Your task to perform on an android device: change keyboard looks Image 0: 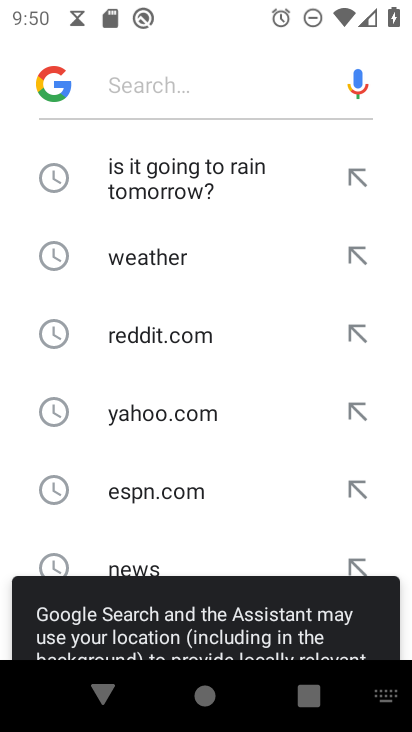
Step 0: press home button
Your task to perform on an android device: change keyboard looks Image 1: 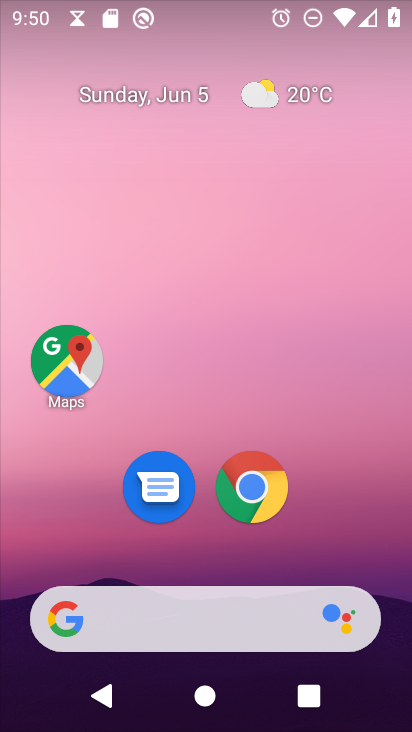
Step 1: drag from (309, 575) to (314, 125)
Your task to perform on an android device: change keyboard looks Image 2: 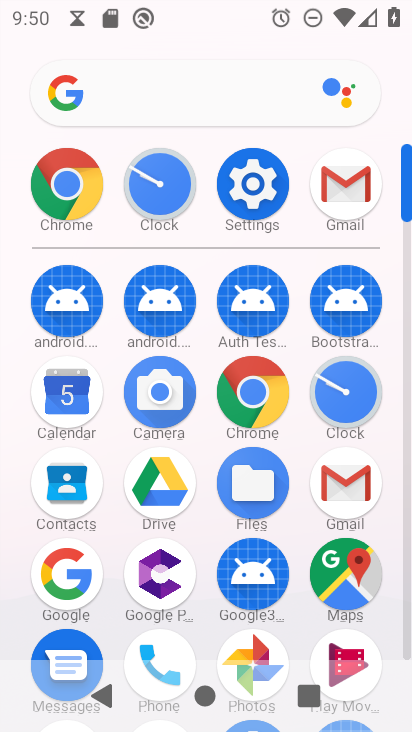
Step 2: click (271, 167)
Your task to perform on an android device: change keyboard looks Image 3: 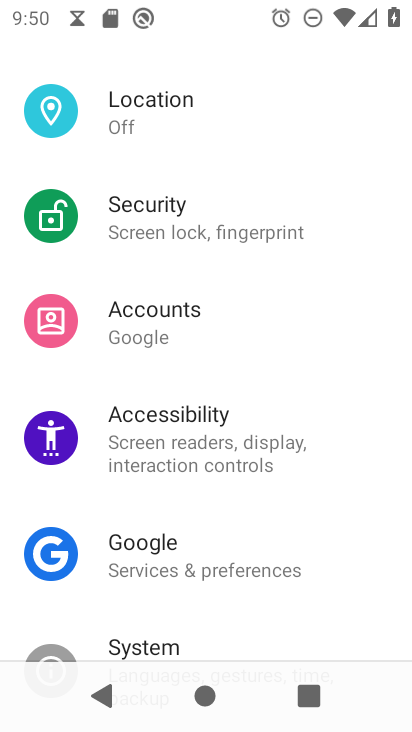
Step 3: click (161, 631)
Your task to perform on an android device: change keyboard looks Image 4: 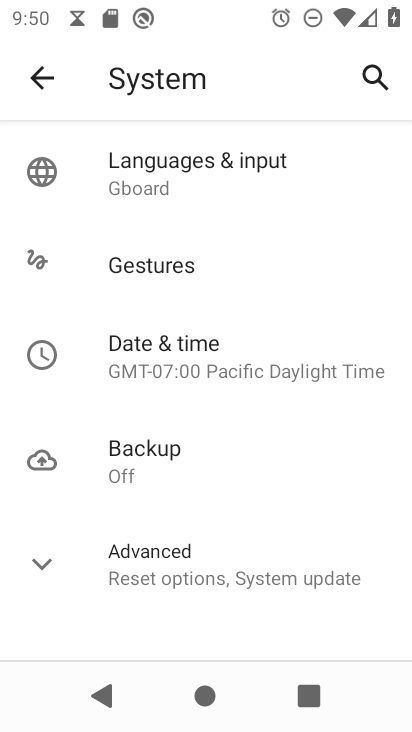
Step 4: click (177, 165)
Your task to perform on an android device: change keyboard looks Image 5: 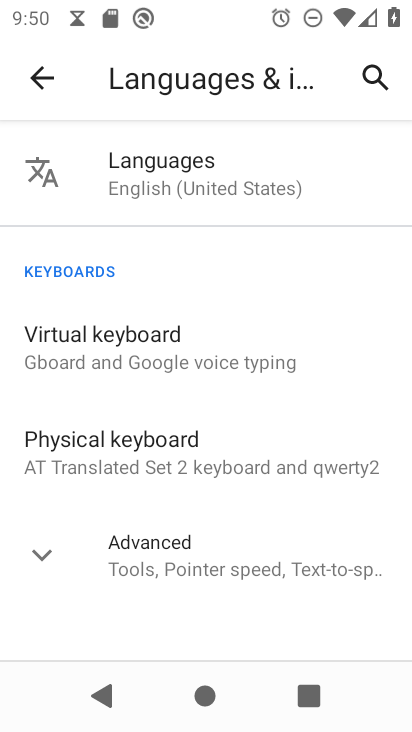
Step 5: click (135, 360)
Your task to perform on an android device: change keyboard looks Image 6: 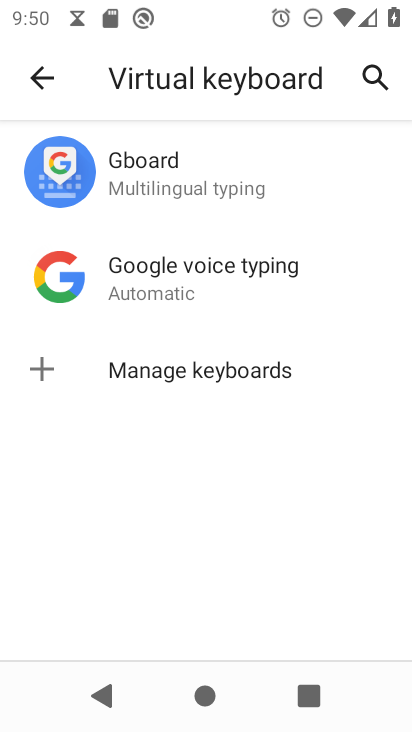
Step 6: click (162, 196)
Your task to perform on an android device: change keyboard looks Image 7: 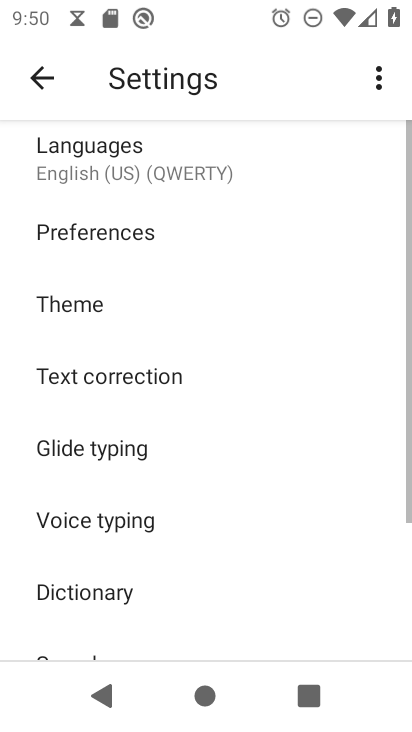
Step 7: click (125, 316)
Your task to perform on an android device: change keyboard looks Image 8: 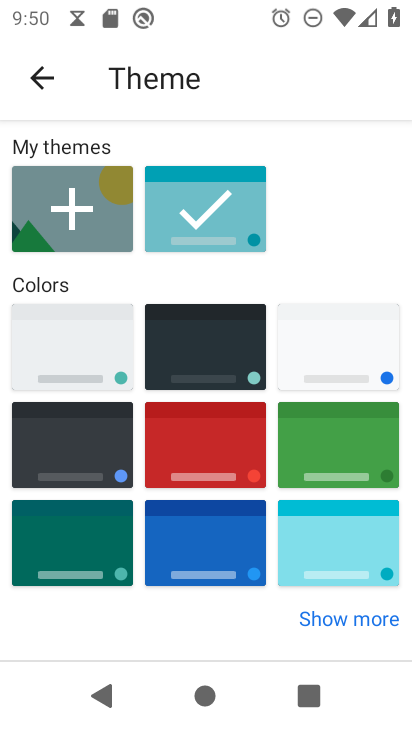
Step 8: click (197, 558)
Your task to perform on an android device: change keyboard looks Image 9: 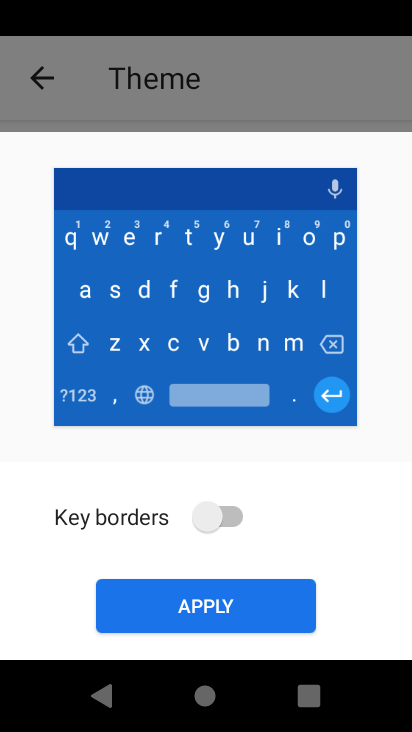
Step 9: click (230, 524)
Your task to perform on an android device: change keyboard looks Image 10: 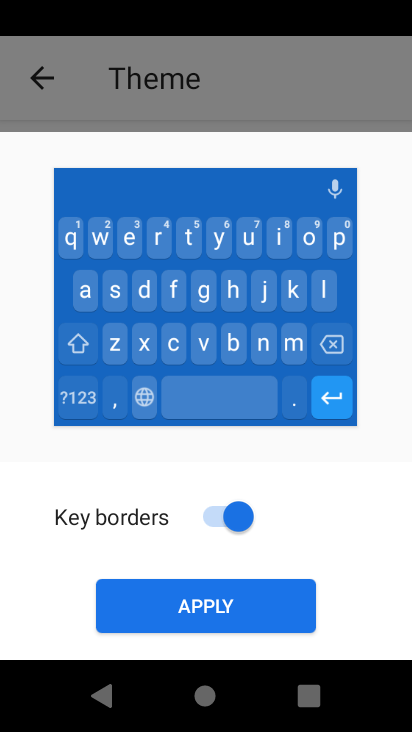
Step 10: click (240, 592)
Your task to perform on an android device: change keyboard looks Image 11: 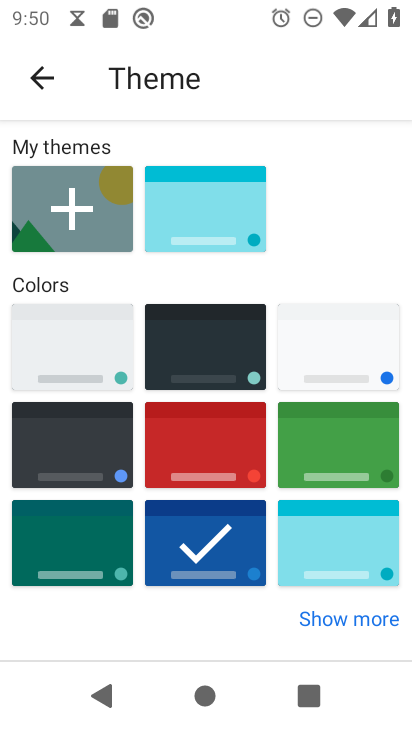
Step 11: task complete